Your task to perform on an android device: turn vacation reply on in the gmail app Image 0: 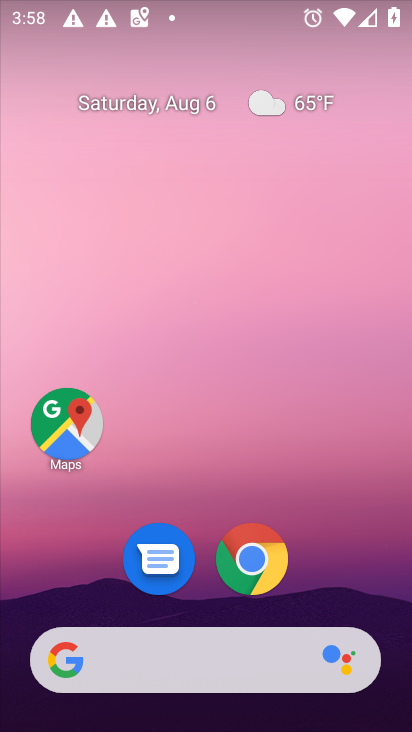
Step 0: drag from (327, 529) to (306, 39)
Your task to perform on an android device: turn vacation reply on in the gmail app Image 1: 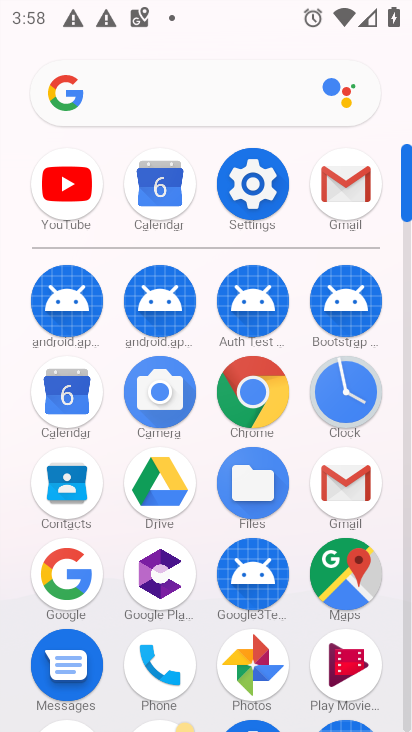
Step 1: click (354, 189)
Your task to perform on an android device: turn vacation reply on in the gmail app Image 2: 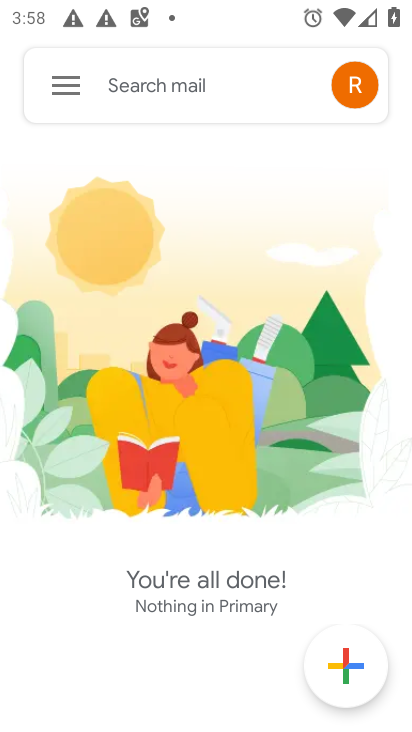
Step 2: click (67, 85)
Your task to perform on an android device: turn vacation reply on in the gmail app Image 3: 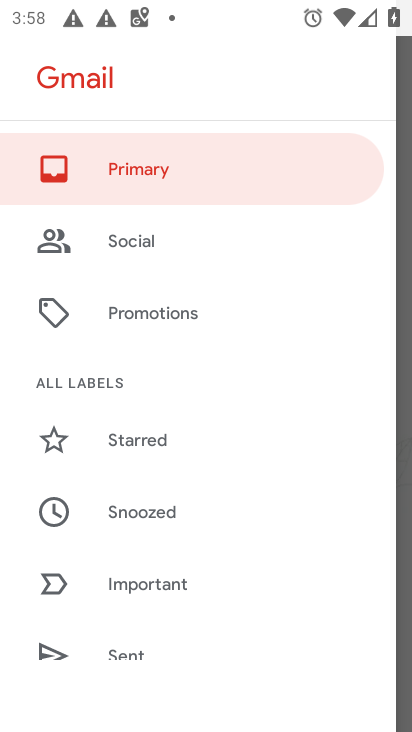
Step 3: drag from (203, 534) to (226, 46)
Your task to perform on an android device: turn vacation reply on in the gmail app Image 4: 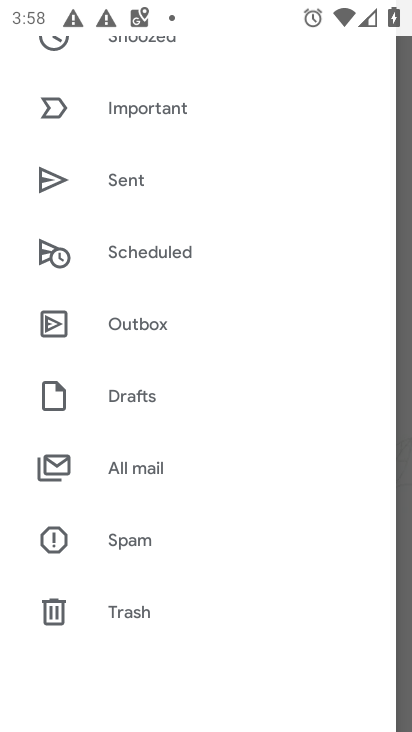
Step 4: drag from (190, 423) to (233, 41)
Your task to perform on an android device: turn vacation reply on in the gmail app Image 5: 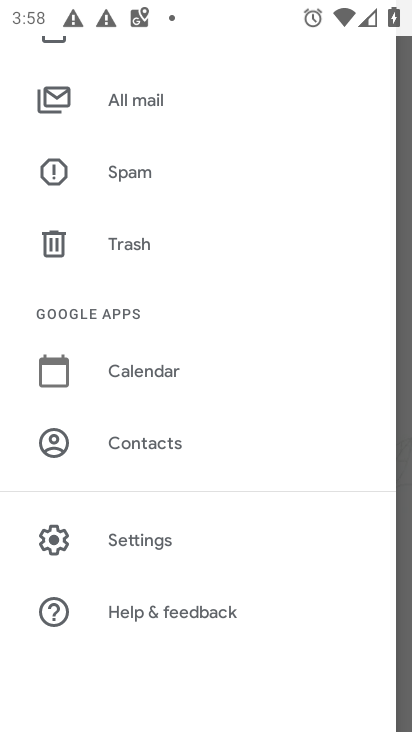
Step 5: click (149, 541)
Your task to perform on an android device: turn vacation reply on in the gmail app Image 6: 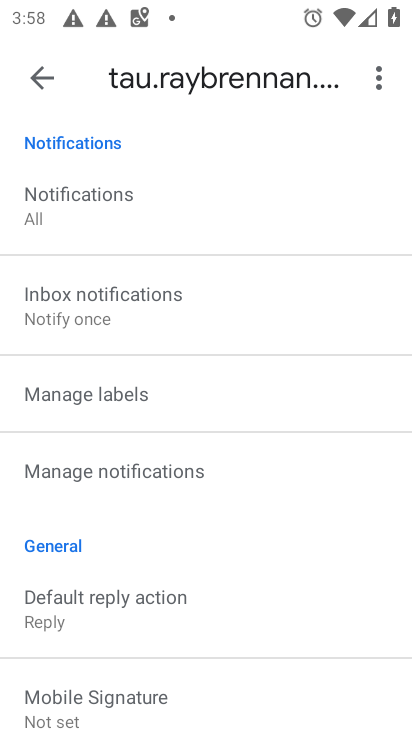
Step 6: drag from (278, 519) to (259, 39)
Your task to perform on an android device: turn vacation reply on in the gmail app Image 7: 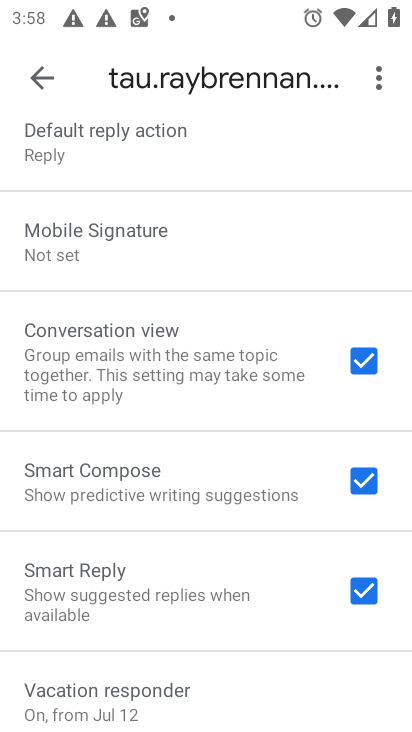
Step 7: drag from (246, 516) to (265, 203)
Your task to perform on an android device: turn vacation reply on in the gmail app Image 8: 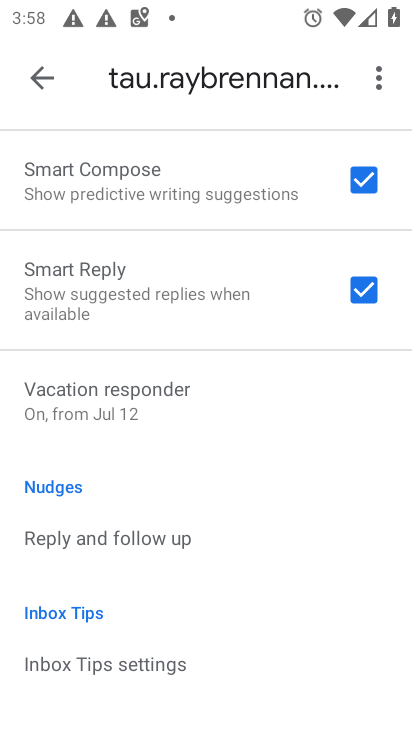
Step 8: click (211, 393)
Your task to perform on an android device: turn vacation reply on in the gmail app Image 9: 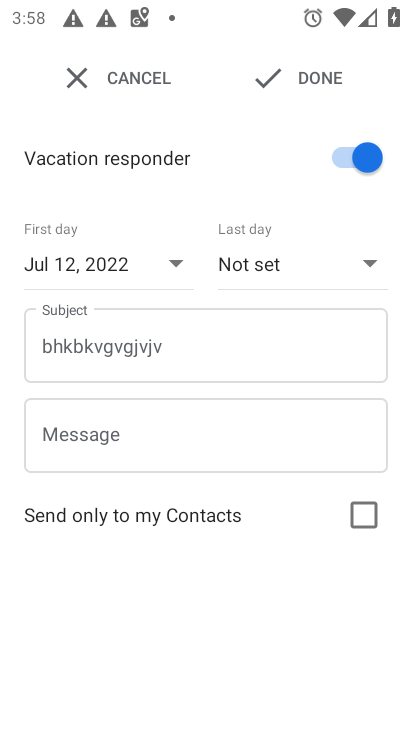
Step 9: task complete